Your task to perform on an android device: show emergency info Image 0: 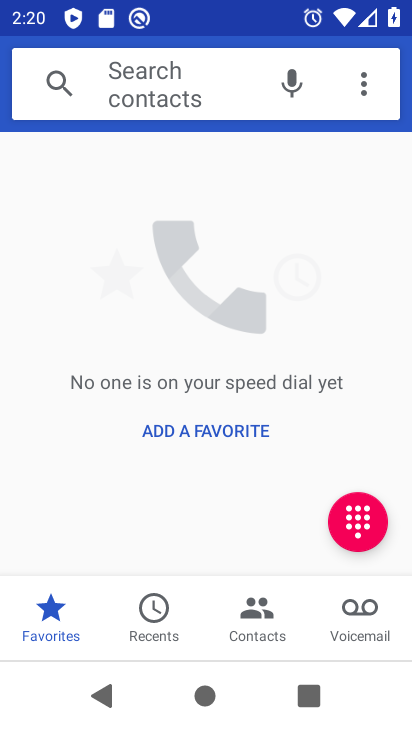
Step 0: drag from (373, 534) to (373, 225)
Your task to perform on an android device: show emergency info Image 1: 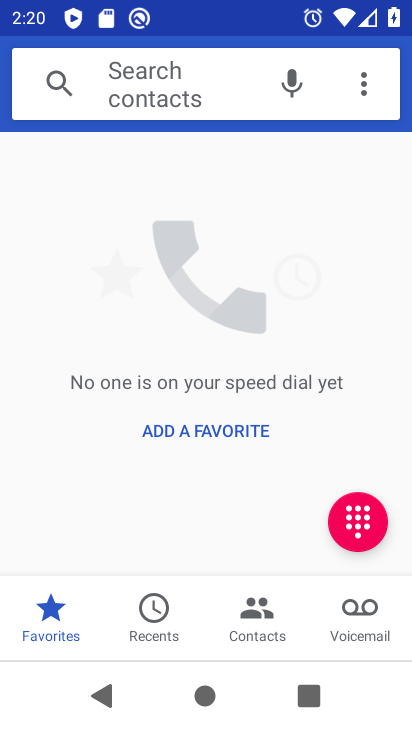
Step 1: press home button
Your task to perform on an android device: show emergency info Image 2: 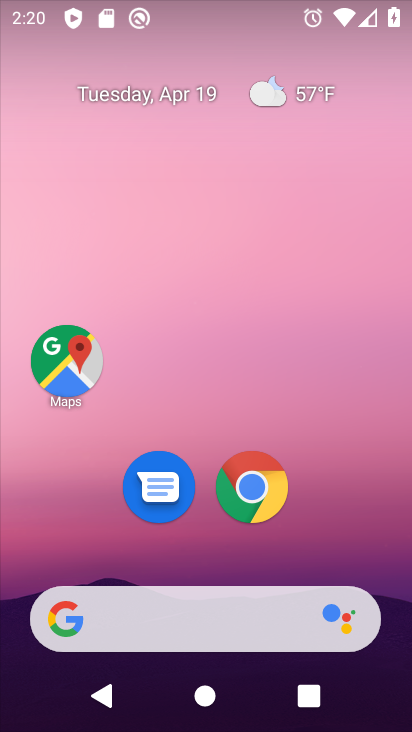
Step 2: drag from (355, 534) to (359, 119)
Your task to perform on an android device: show emergency info Image 3: 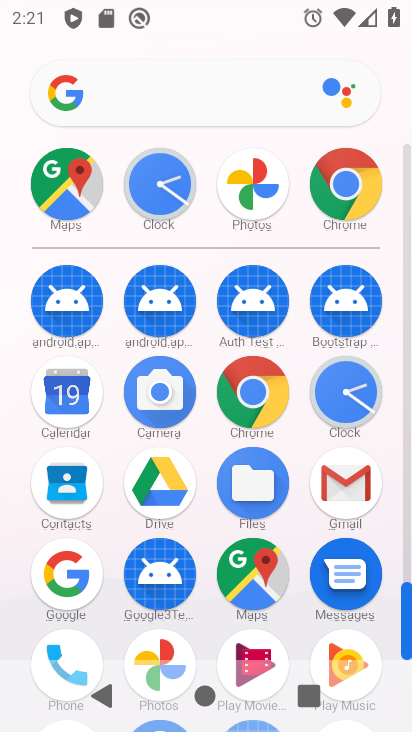
Step 3: drag from (296, 615) to (299, 311)
Your task to perform on an android device: show emergency info Image 4: 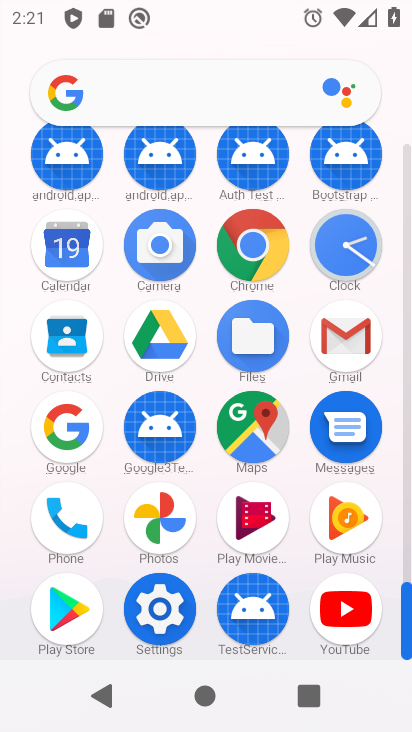
Step 4: click (149, 619)
Your task to perform on an android device: show emergency info Image 5: 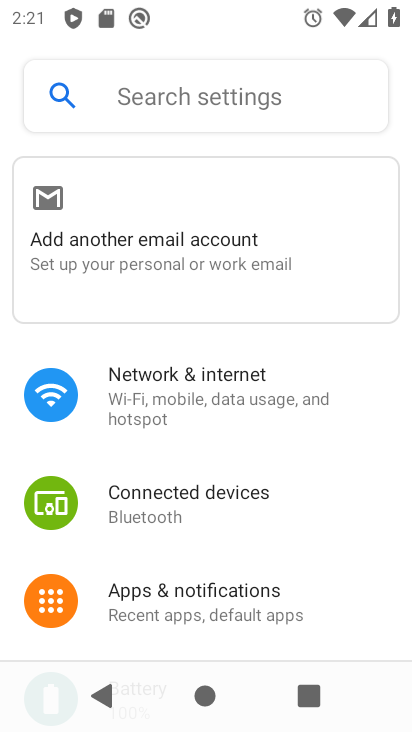
Step 5: drag from (369, 411) to (386, 230)
Your task to perform on an android device: show emergency info Image 6: 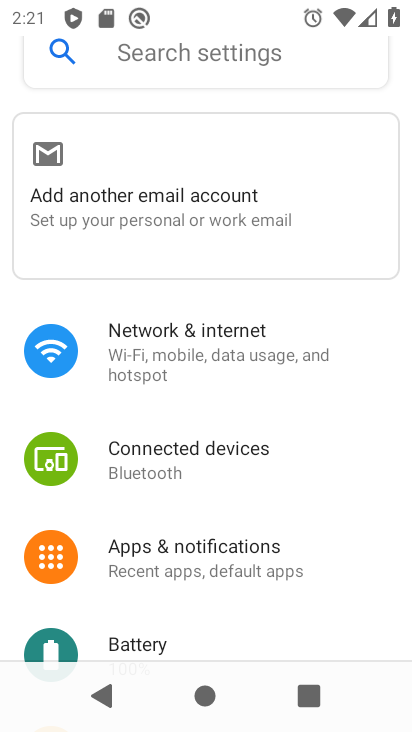
Step 6: drag from (346, 571) to (360, 280)
Your task to perform on an android device: show emergency info Image 7: 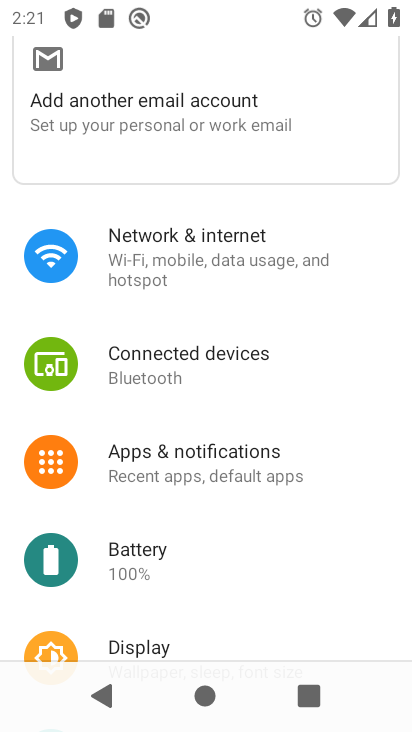
Step 7: drag from (302, 615) to (294, 226)
Your task to perform on an android device: show emergency info Image 8: 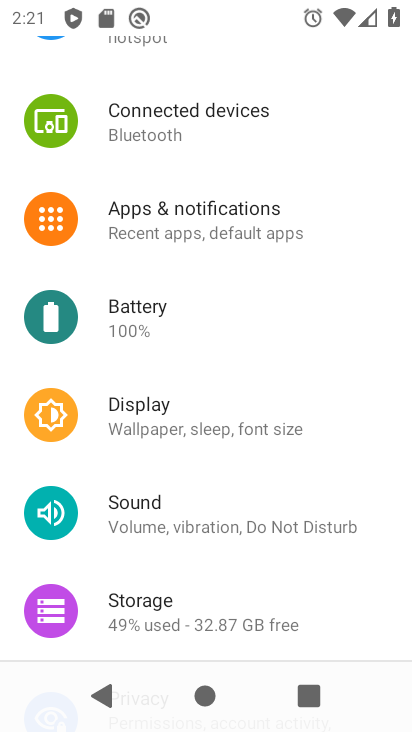
Step 8: drag from (332, 584) to (339, 188)
Your task to perform on an android device: show emergency info Image 9: 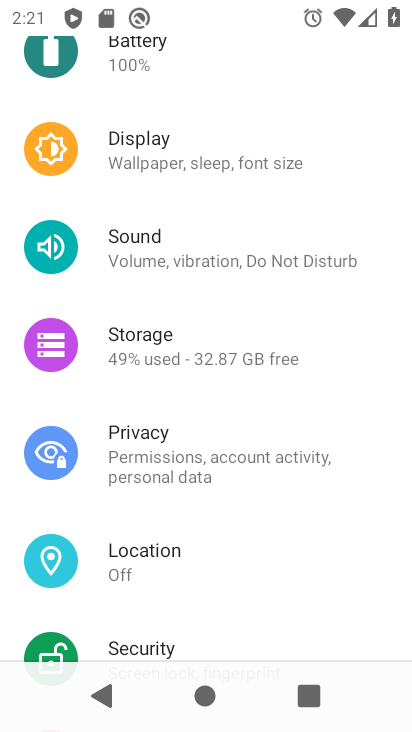
Step 9: drag from (358, 565) to (332, 182)
Your task to perform on an android device: show emergency info Image 10: 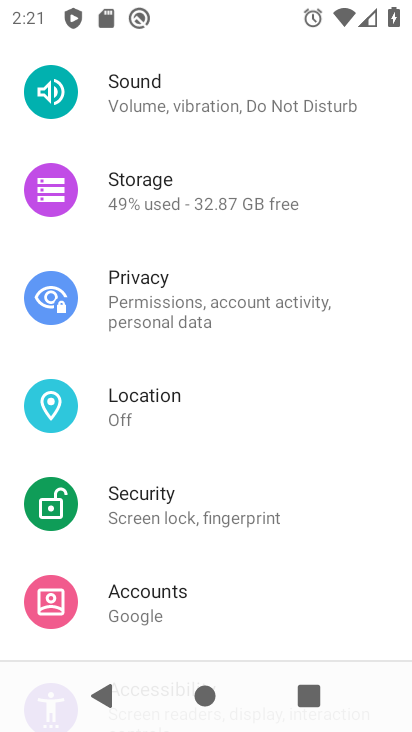
Step 10: drag from (339, 618) to (370, 253)
Your task to perform on an android device: show emergency info Image 11: 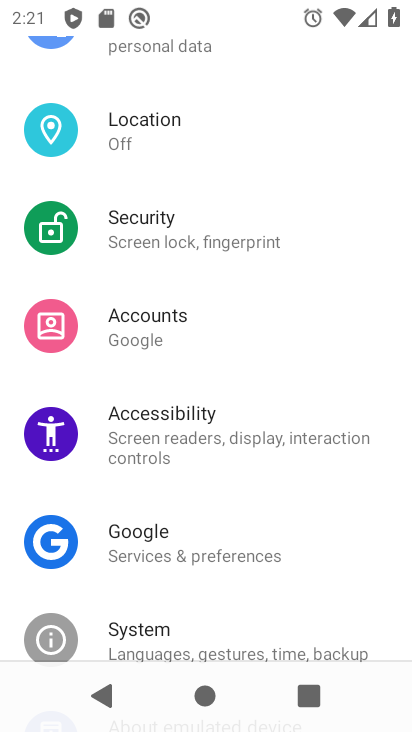
Step 11: drag from (335, 585) to (345, 156)
Your task to perform on an android device: show emergency info Image 12: 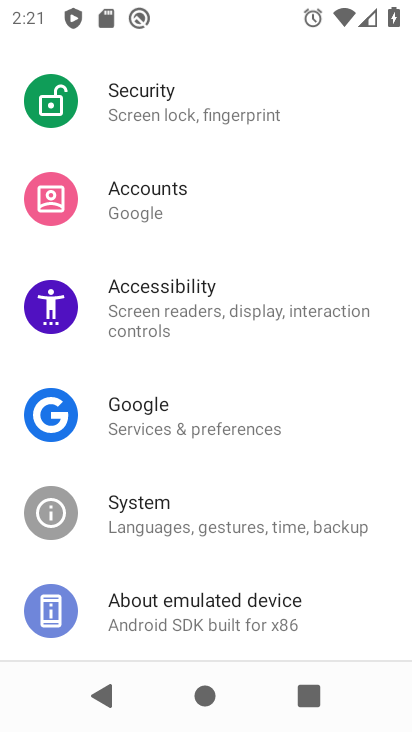
Step 12: click (234, 604)
Your task to perform on an android device: show emergency info Image 13: 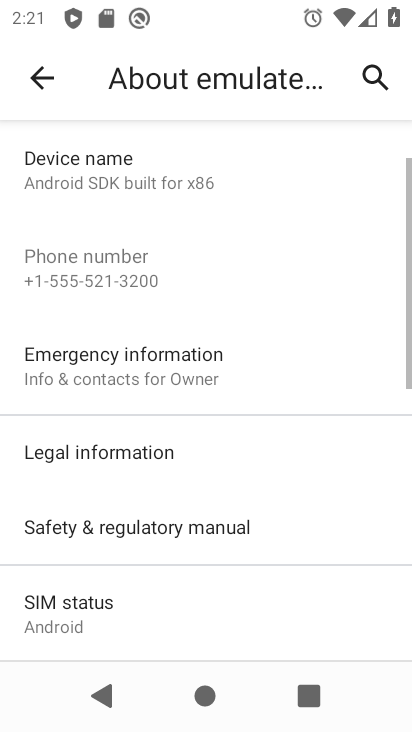
Step 13: click (184, 370)
Your task to perform on an android device: show emergency info Image 14: 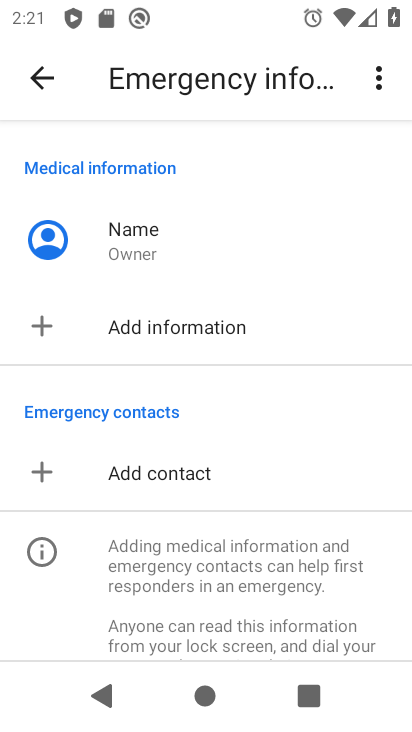
Step 14: task complete